Your task to perform on an android device: Go to Maps Image 0: 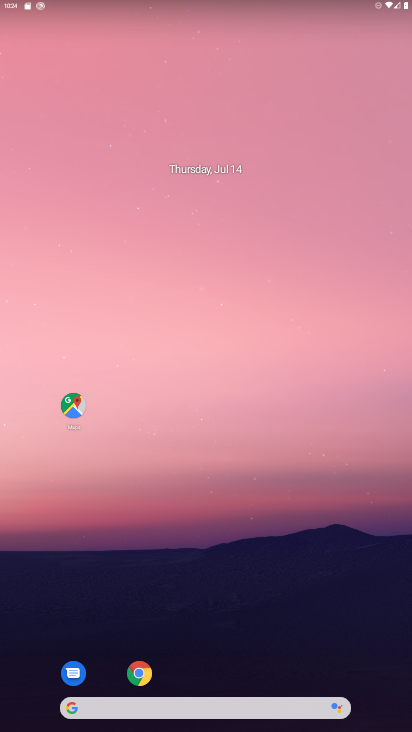
Step 0: click (70, 408)
Your task to perform on an android device: Go to Maps Image 1: 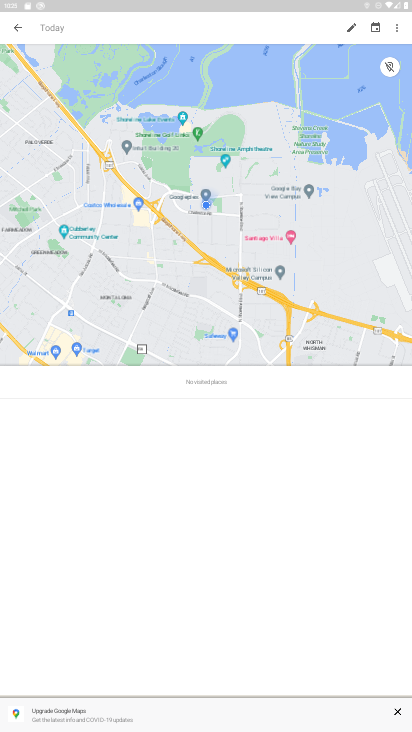
Step 1: task complete